Your task to perform on an android device: Do I have any events tomorrow? Image 0: 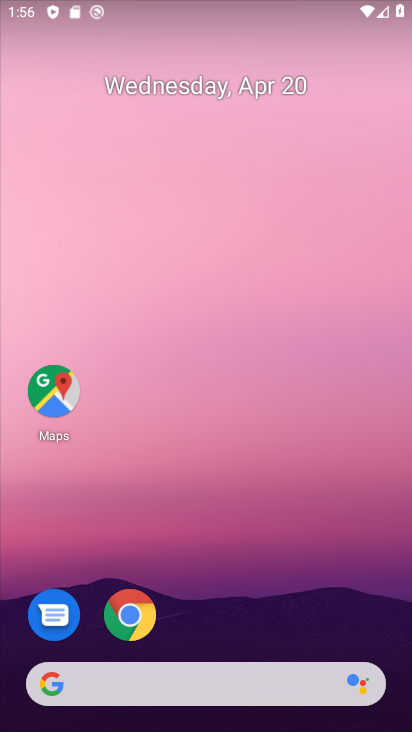
Step 0: drag from (314, 625) to (229, 46)
Your task to perform on an android device: Do I have any events tomorrow? Image 1: 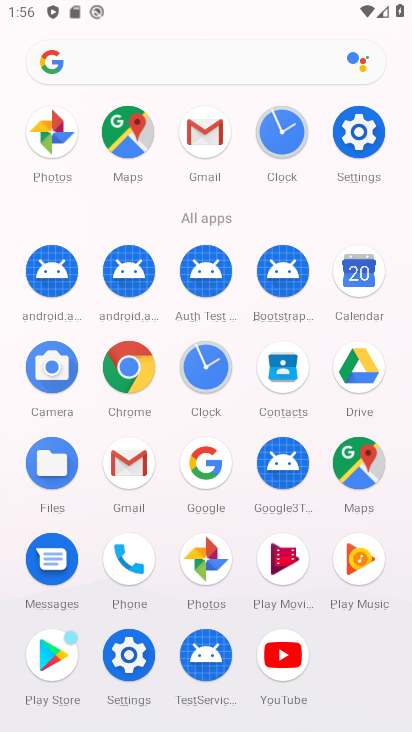
Step 1: click (364, 283)
Your task to perform on an android device: Do I have any events tomorrow? Image 2: 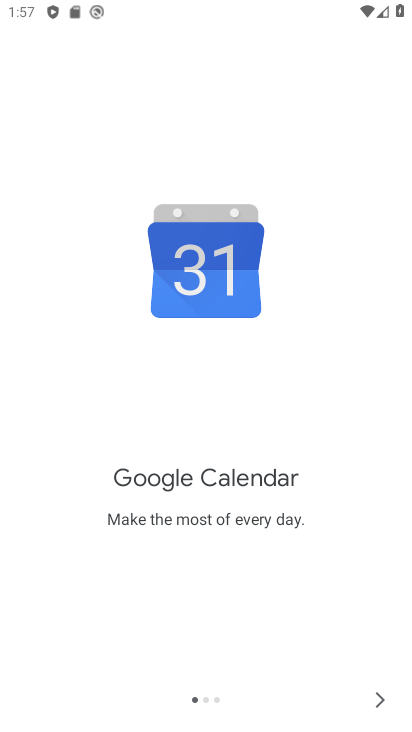
Step 2: click (377, 697)
Your task to perform on an android device: Do I have any events tomorrow? Image 3: 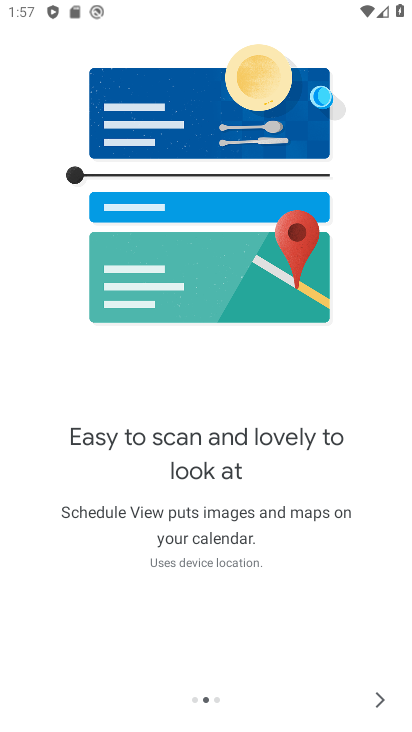
Step 3: click (377, 697)
Your task to perform on an android device: Do I have any events tomorrow? Image 4: 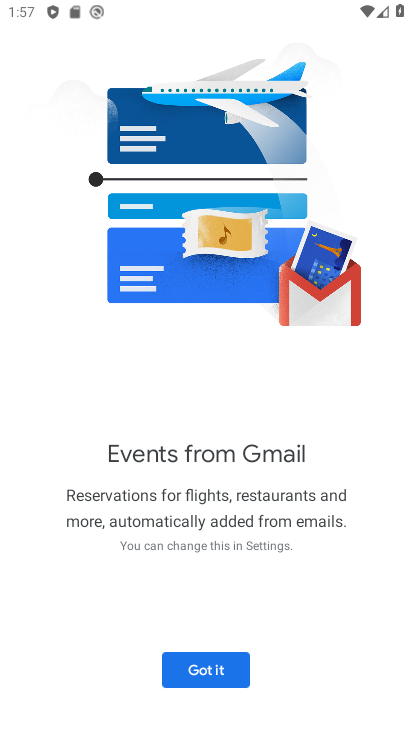
Step 4: click (377, 697)
Your task to perform on an android device: Do I have any events tomorrow? Image 5: 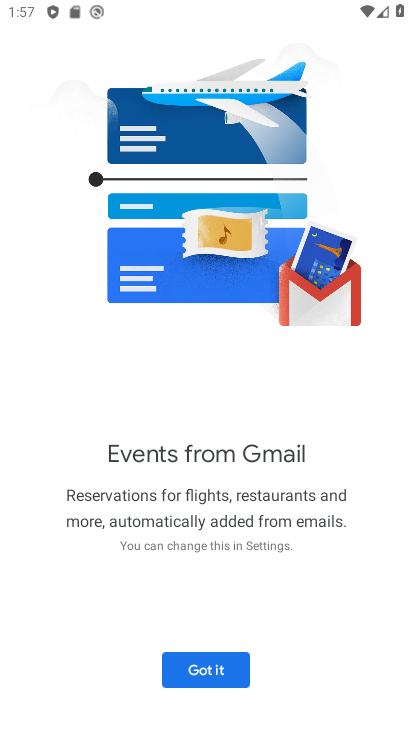
Step 5: click (219, 663)
Your task to perform on an android device: Do I have any events tomorrow? Image 6: 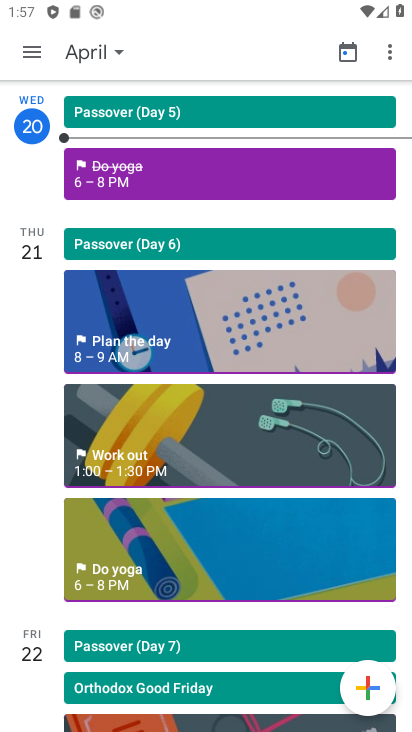
Step 6: click (109, 48)
Your task to perform on an android device: Do I have any events tomorrow? Image 7: 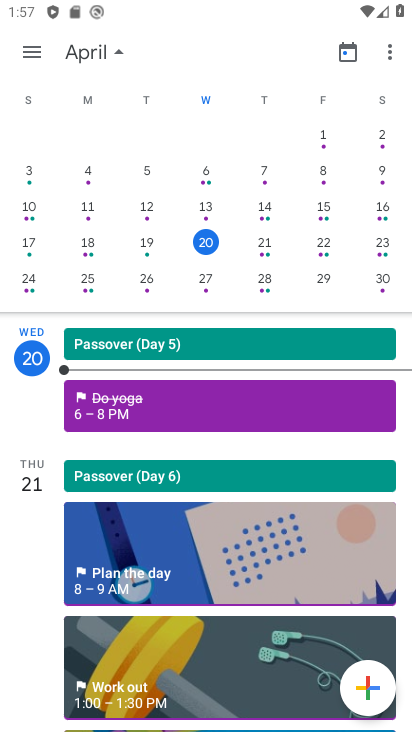
Step 7: click (261, 240)
Your task to perform on an android device: Do I have any events tomorrow? Image 8: 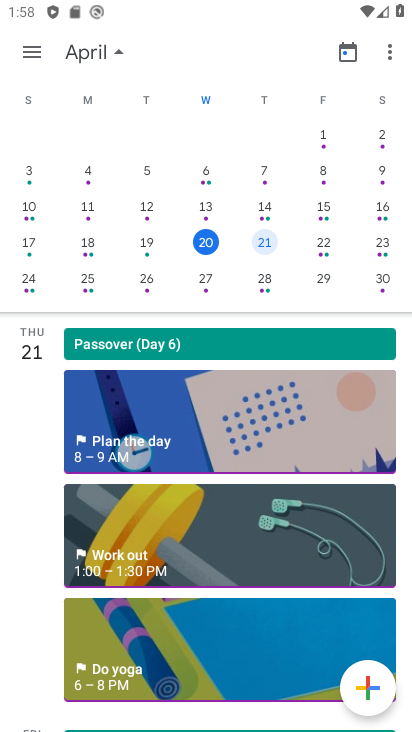
Step 8: click (259, 237)
Your task to perform on an android device: Do I have any events tomorrow? Image 9: 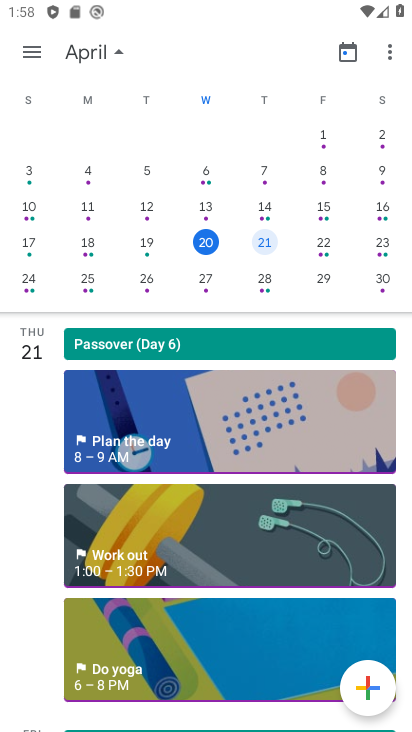
Step 9: click (212, 249)
Your task to perform on an android device: Do I have any events tomorrow? Image 10: 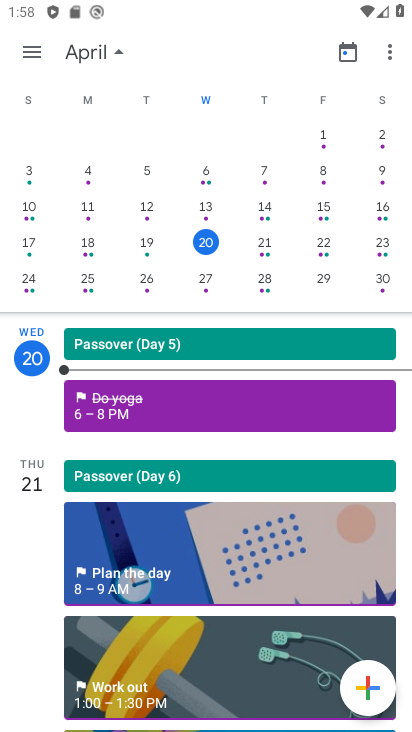
Step 10: click (279, 248)
Your task to perform on an android device: Do I have any events tomorrow? Image 11: 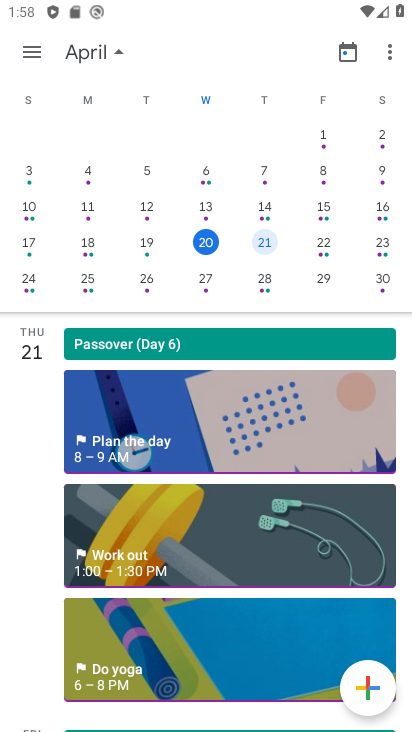
Step 11: task complete